Your task to perform on an android device: change the clock display to show seconds Image 0: 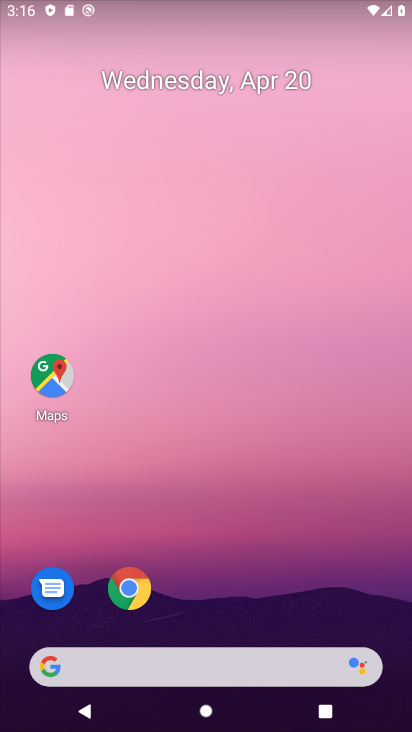
Step 0: drag from (288, 601) to (305, 0)
Your task to perform on an android device: change the clock display to show seconds Image 1: 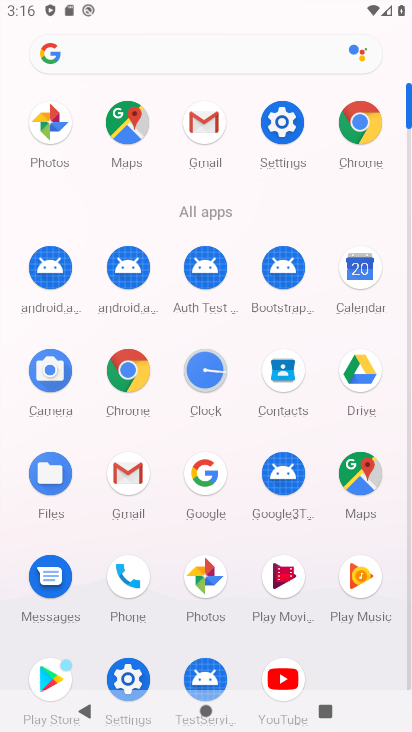
Step 1: click (208, 366)
Your task to perform on an android device: change the clock display to show seconds Image 2: 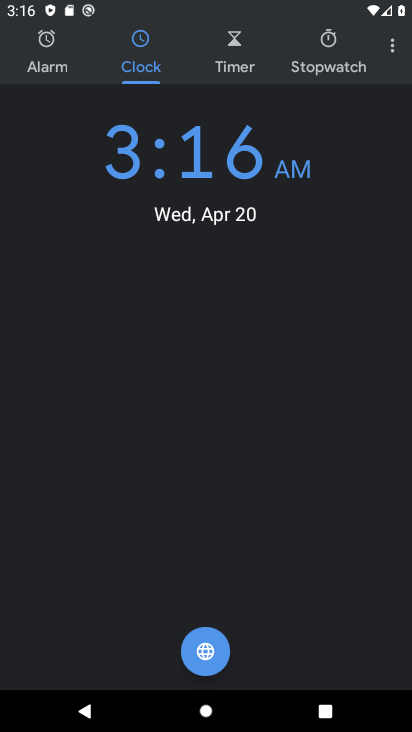
Step 2: click (380, 42)
Your task to perform on an android device: change the clock display to show seconds Image 3: 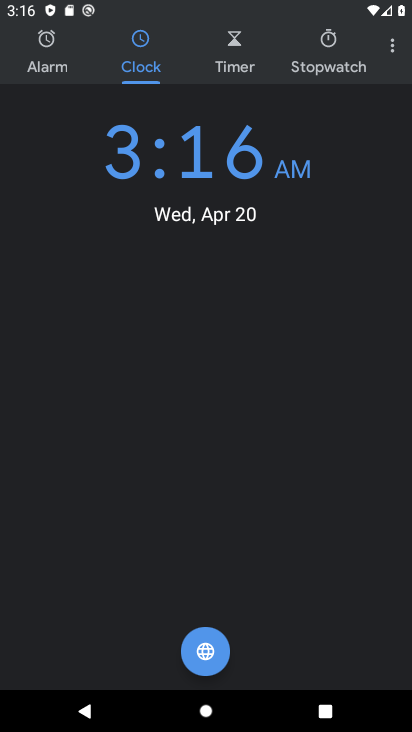
Step 3: click (390, 59)
Your task to perform on an android device: change the clock display to show seconds Image 4: 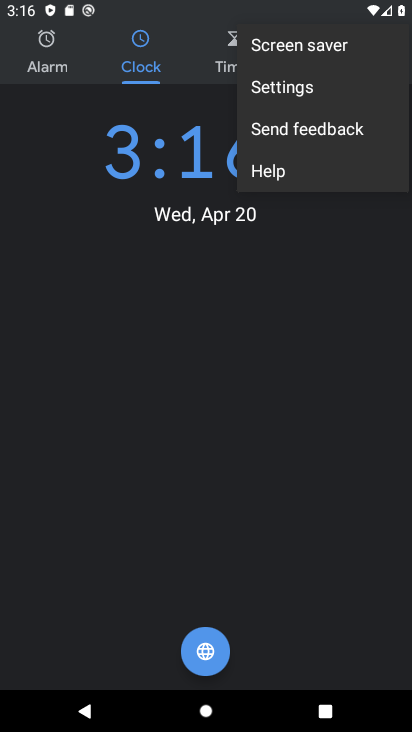
Step 4: click (353, 92)
Your task to perform on an android device: change the clock display to show seconds Image 5: 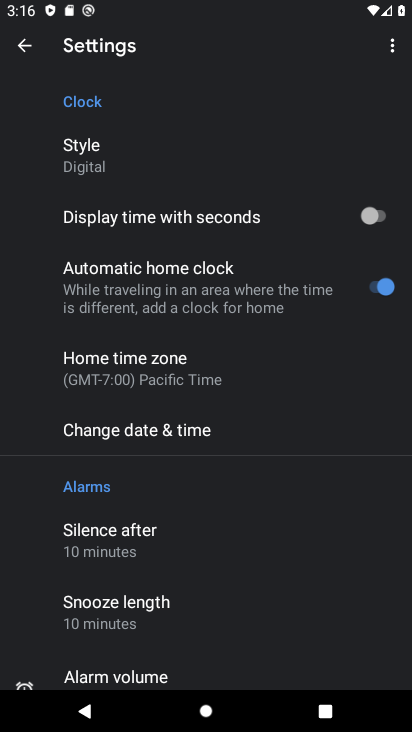
Step 5: click (374, 220)
Your task to perform on an android device: change the clock display to show seconds Image 6: 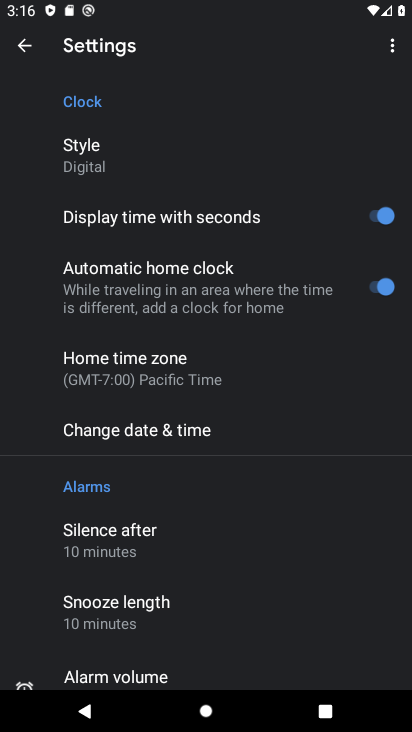
Step 6: task complete